Your task to perform on an android device: Show me recent news Image 0: 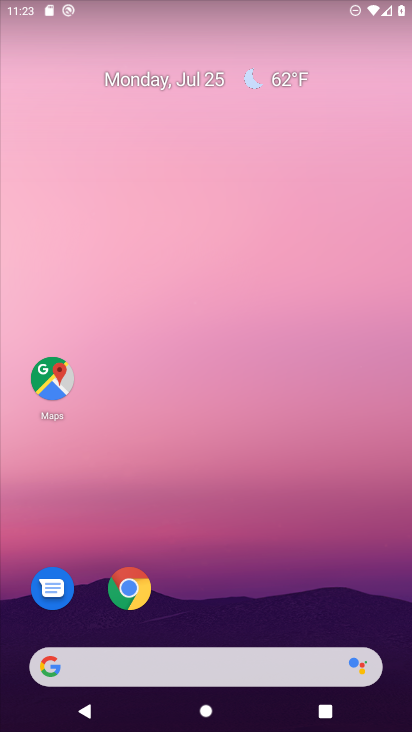
Step 0: drag from (65, 728) to (255, 159)
Your task to perform on an android device: Show me recent news Image 1: 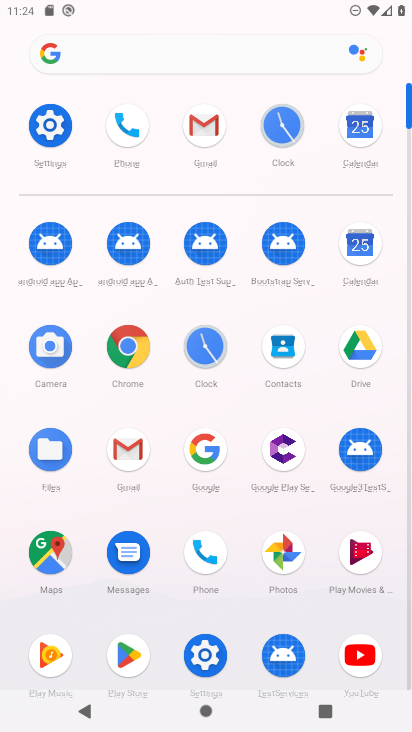
Step 1: press home button
Your task to perform on an android device: Show me recent news Image 2: 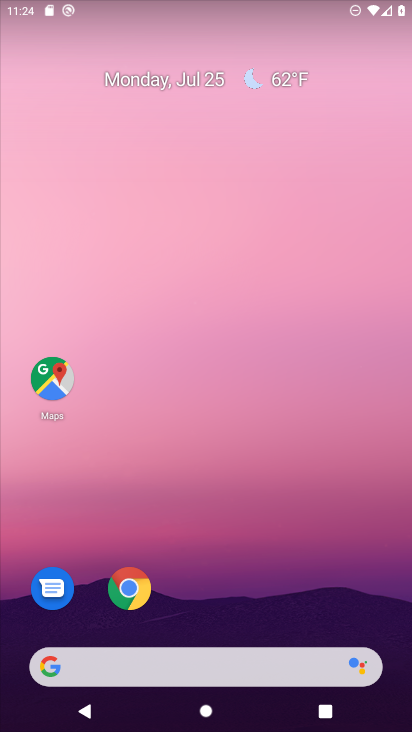
Step 2: click (204, 680)
Your task to perform on an android device: Show me recent news Image 3: 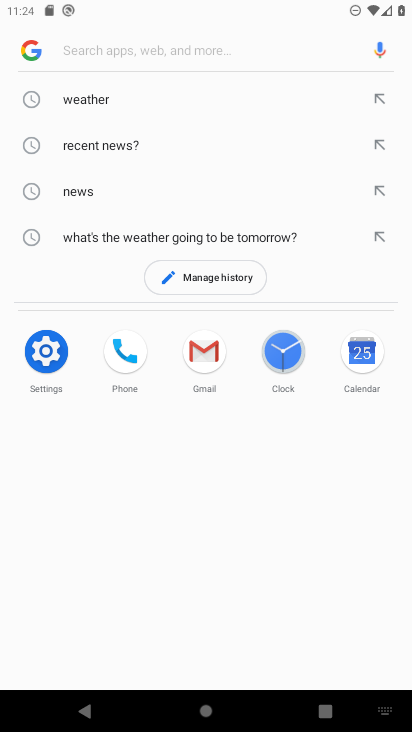
Step 3: click (88, 181)
Your task to perform on an android device: Show me recent news Image 4: 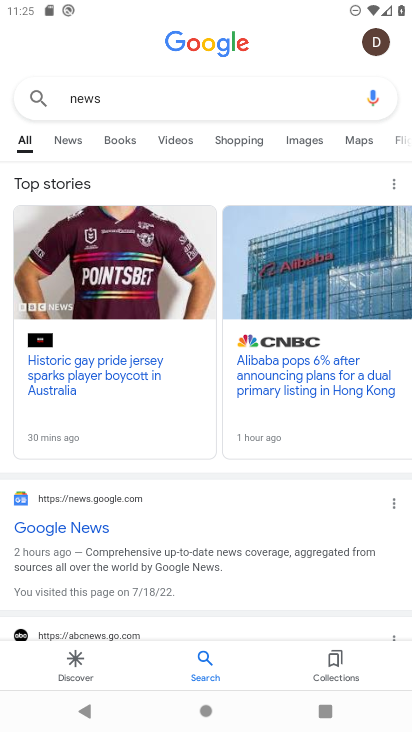
Step 4: task complete